Your task to perform on an android device: turn off improve location accuracy Image 0: 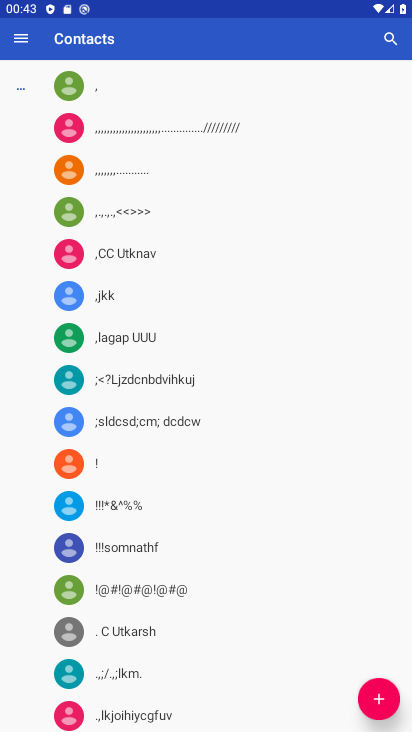
Step 0: press home button
Your task to perform on an android device: turn off improve location accuracy Image 1: 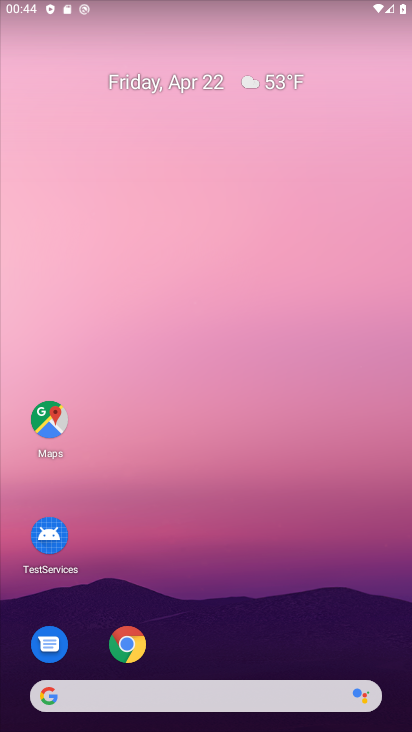
Step 1: drag from (240, 422) to (173, 59)
Your task to perform on an android device: turn off improve location accuracy Image 2: 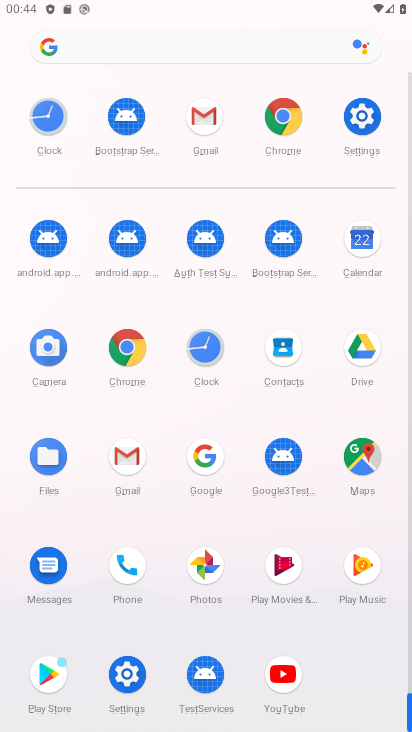
Step 2: click (113, 677)
Your task to perform on an android device: turn off improve location accuracy Image 3: 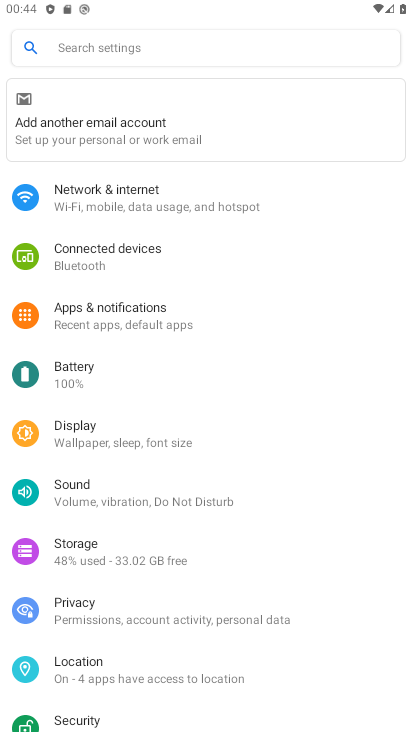
Step 3: drag from (213, 630) to (271, 130)
Your task to perform on an android device: turn off improve location accuracy Image 4: 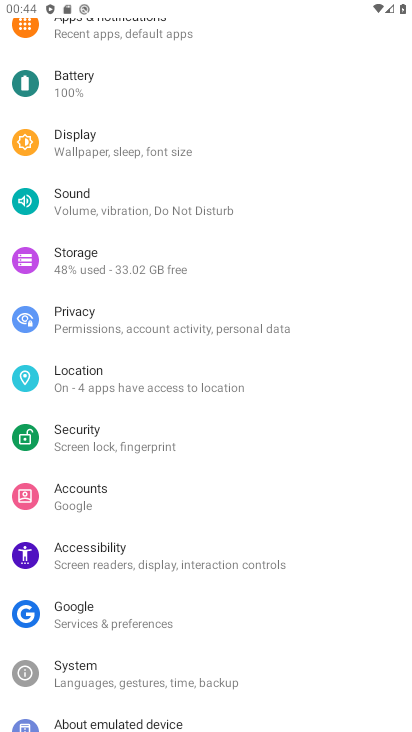
Step 4: drag from (104, 596) to (163, 461)
Your task to perform on an android device: turn off improve location accuracy Image 5: 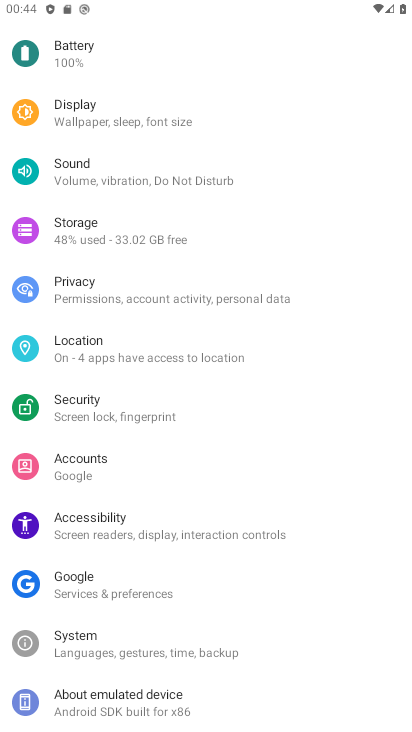
Step 5: click (135, 352)
Your task to perform on an android device: turn off improve location accuracy Image 6: 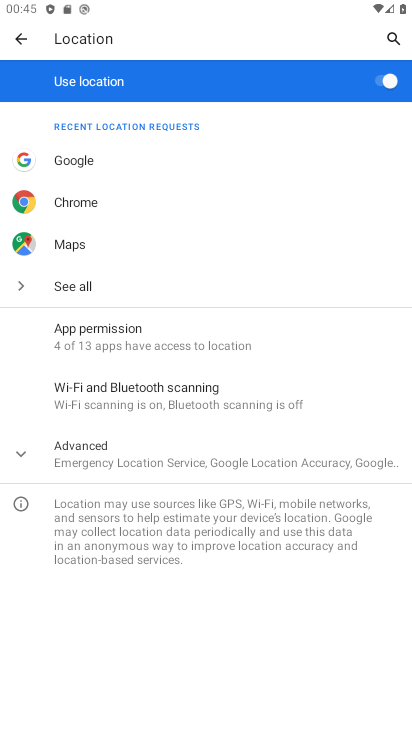
Step 6: click (86, 444)
Your task to perform on an android device: turn off improve location accuracy Image 7: 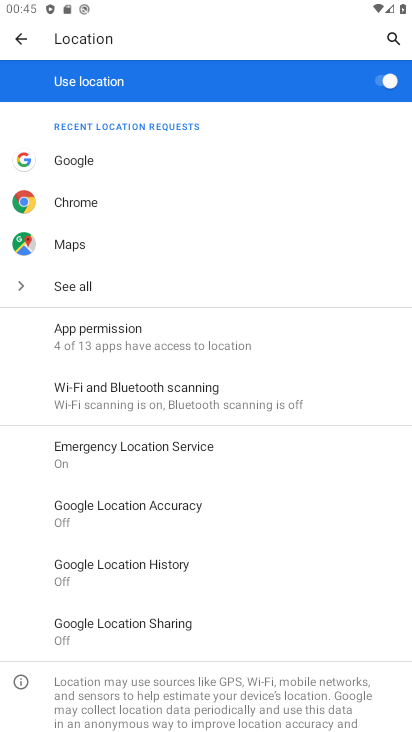
Step 7: click (139, 509)
Your task to perform on an android device: turn off improve location accuracy Image 8: 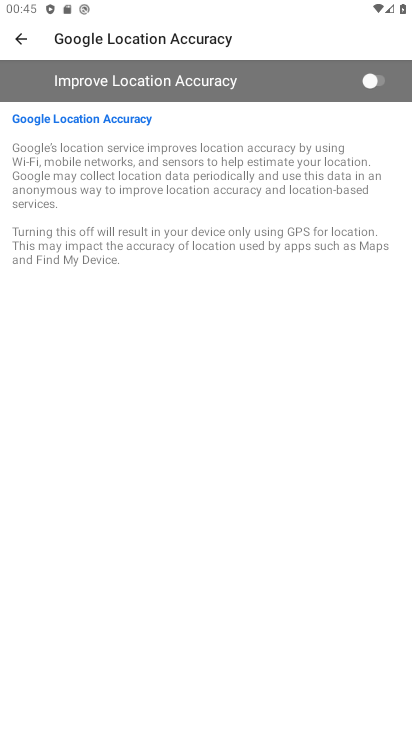
Step 8: task complete